Your task to perform on an android device: toggle translation in the chrome app Image 0: 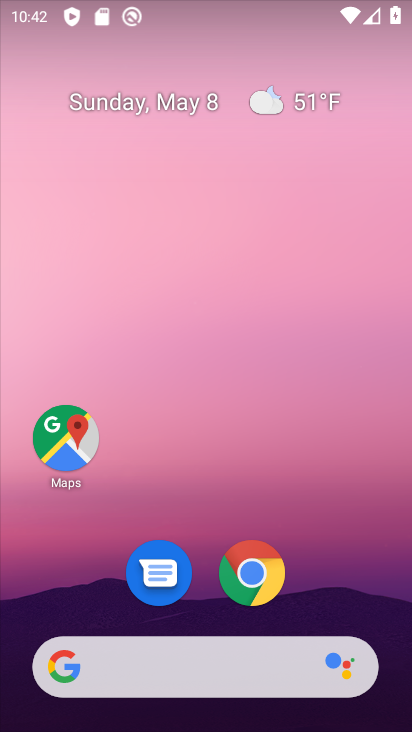
Step 0: click (258, 572)
Your task to perform on an android device: toggle translation in the chrome app Image 1: 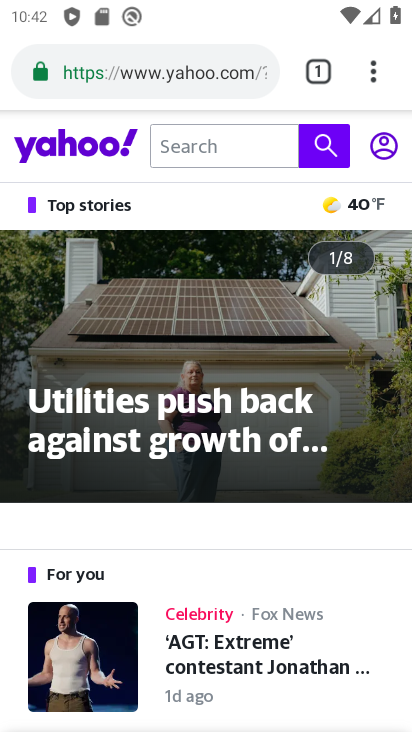
Step 1: click (374, 65)
Your task to perform on an android device: toggle translation in the chrome app Image 2: 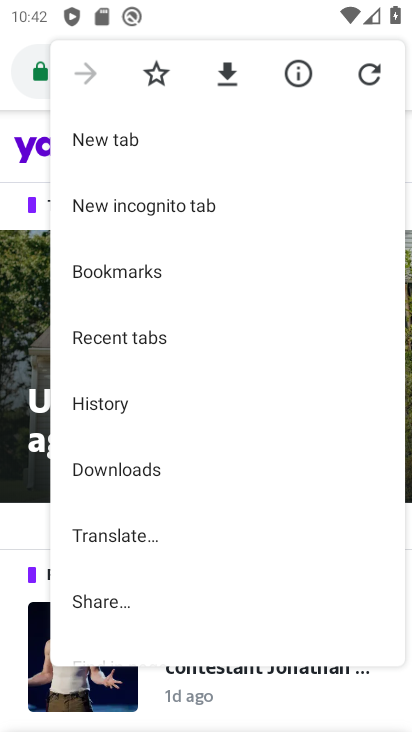
Step 2: drag from (190, 606) to (232, 170)
Your task to perform on an android device: toggle translation in the chrome app Image 3: 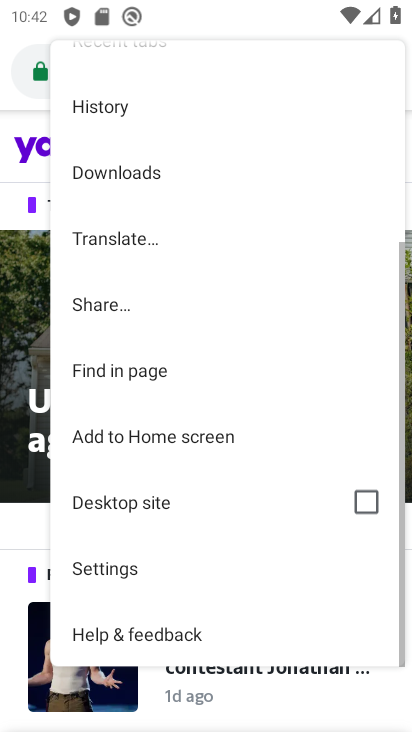
Step 3: click (116, 569)
Your task to perform on an android device: toggle translation in the chrome app Image 4: 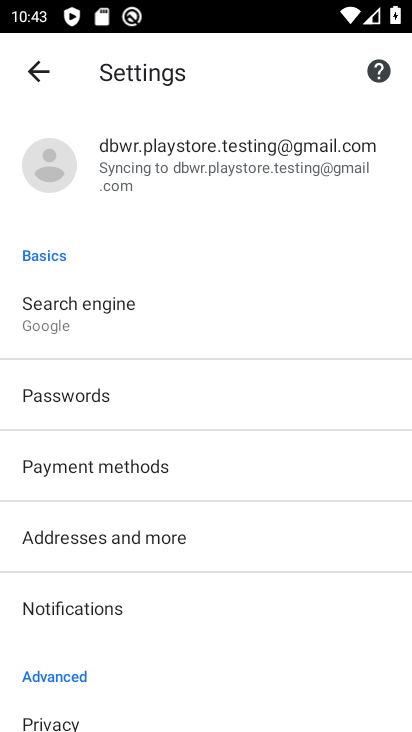
Step 4: drag from (161, 704) to (150, 324)
Your task to perform on an android device: toggle translation in the chrome app Image 5: 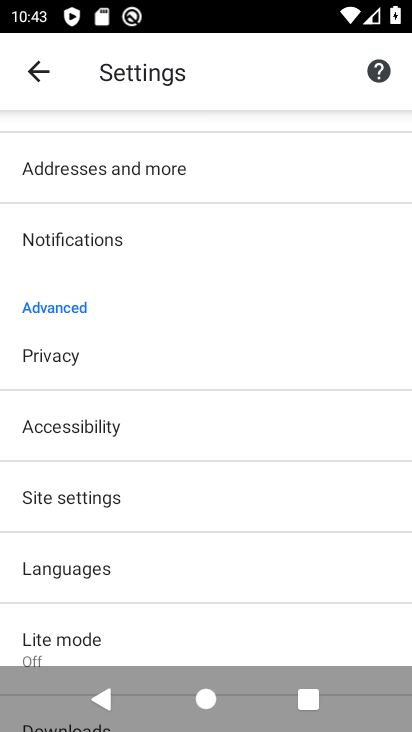
Step 5: drag from (48, 643) to (85, 271)
Your task to perform on an android device: toggle translation in the chrome app Image 6: 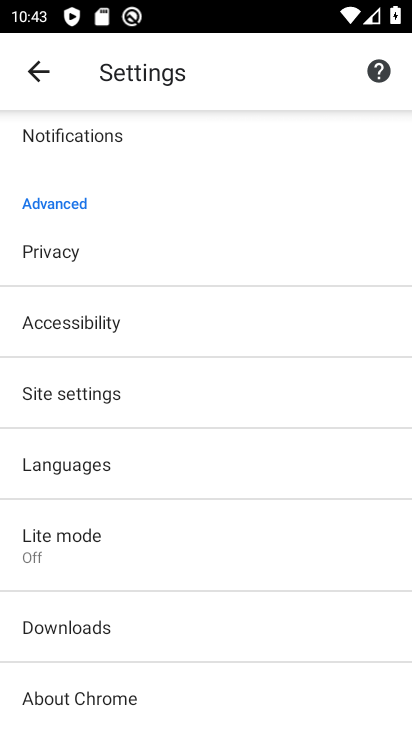
Step 6: click (62, 466)
Your task to perform on an android device: toggle translation in the chrome app Image 7: 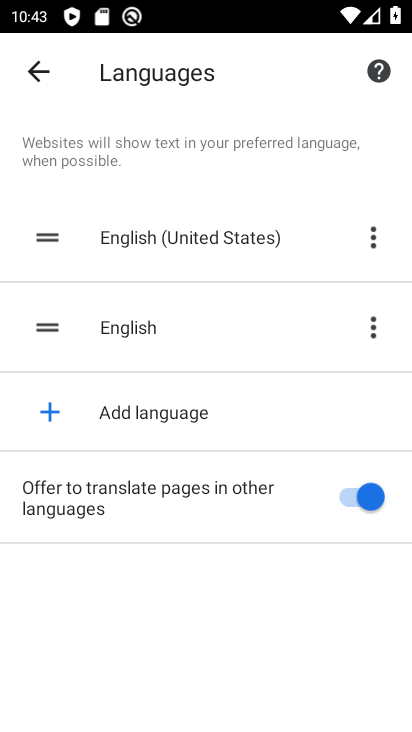
Step 7: click (334, 494)
Your task to perform on an android device: toggle translation in the chrome app Image 8: 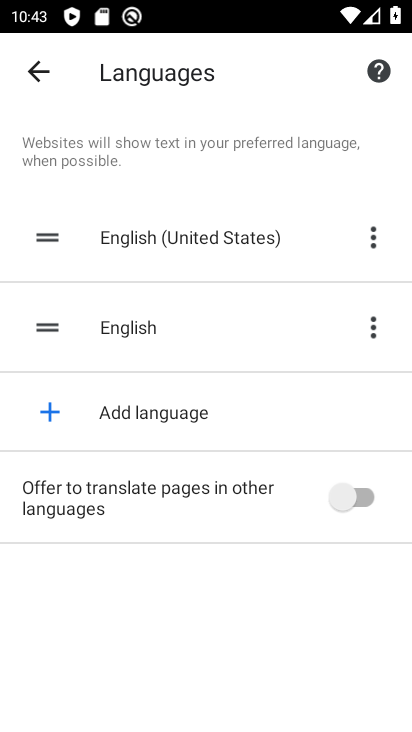
Step 8: task complete